Your task to perform on an android device: turn notification dots on Image 0: 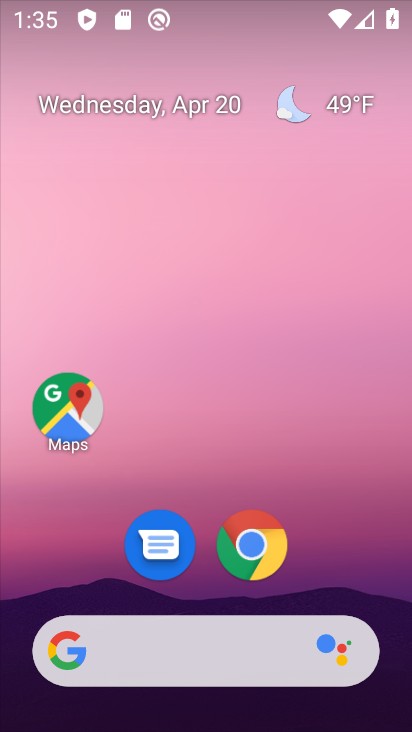
Step 0: drag from (202, 491) to (204, 0)
Your task to perform on an android device: turn notification dots on Image 1: 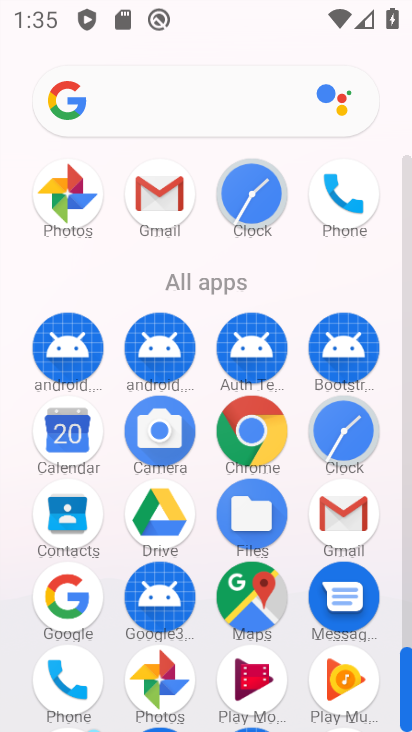
Step 1: drag from (206, 557) to (298, 186)
Your task to perform on an android device: turn notification dots on Image 2: 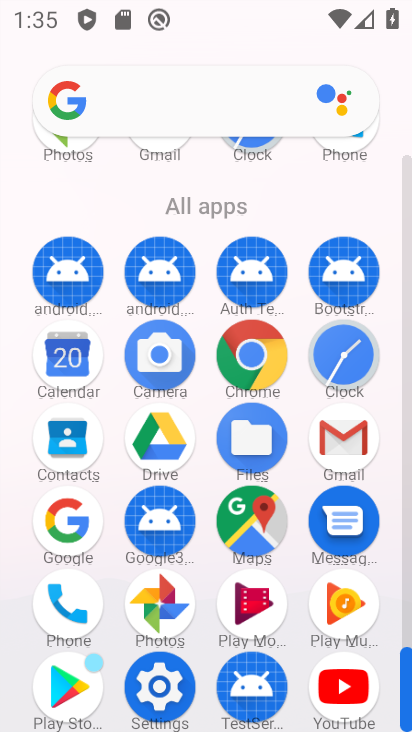
Step 2: click (161, 684)
Your task to perform on an android device: turn notification dots on Image 3: 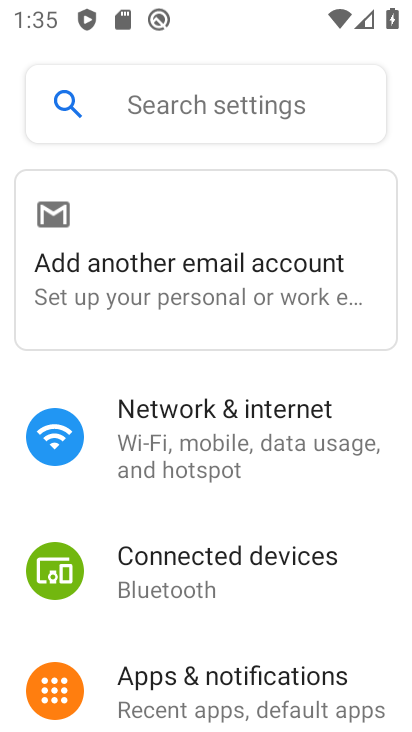
Step 3: click (190, 670)
Your task to perform on an android device: turn notification dots on Image 4: 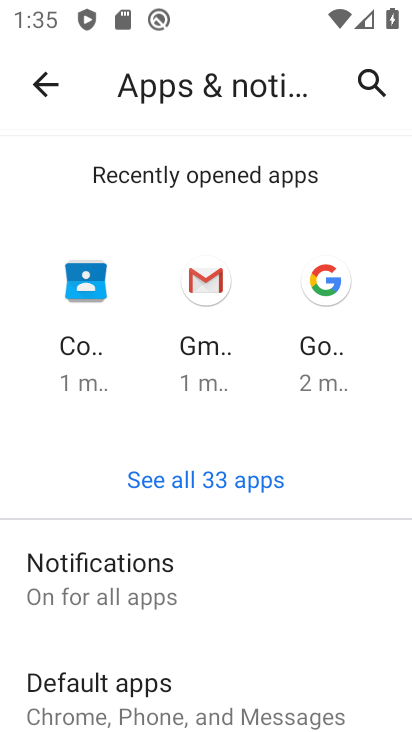
Step 4: click (147, 563)
Your task to perform on an android device: turn notification dots on Image 5: 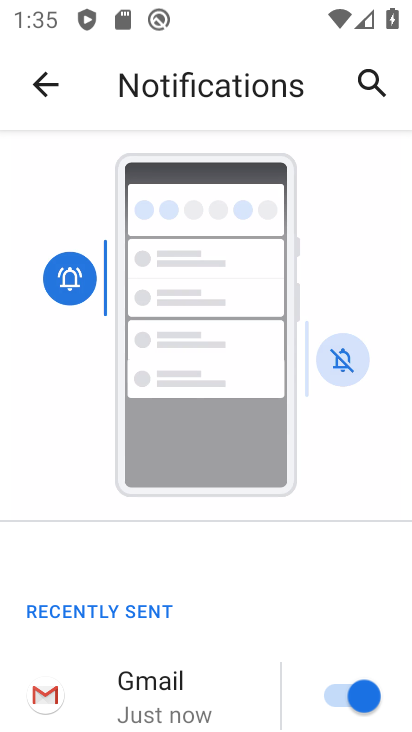
Step 5: drag from (226, 645) to (335, 115)
Your task to perform on an android device: turn notification dots on Image 6: 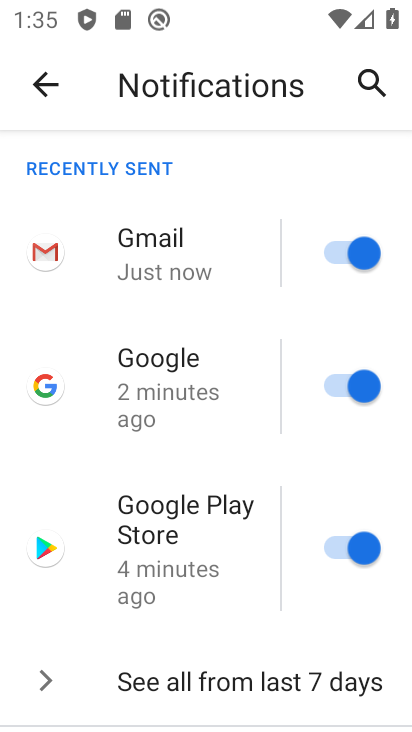
Step 6: drag from (202, 630) to (332, 161)
Your task to perform on an android device: turn notification dots on Image 7: 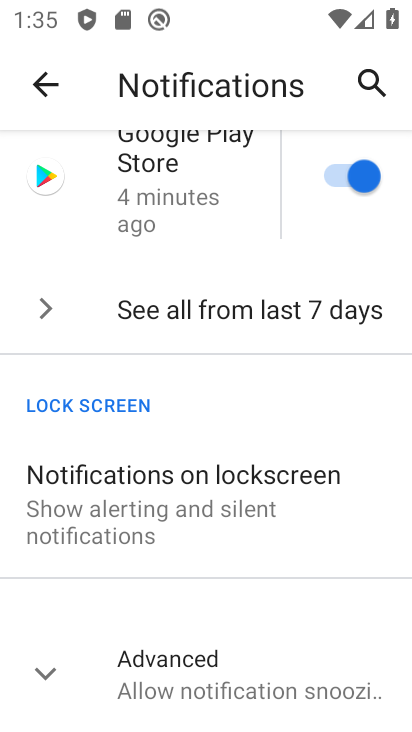
Step 7: click (219, 688)
Your task to perform on an android device: turn notification dots on Image 8: 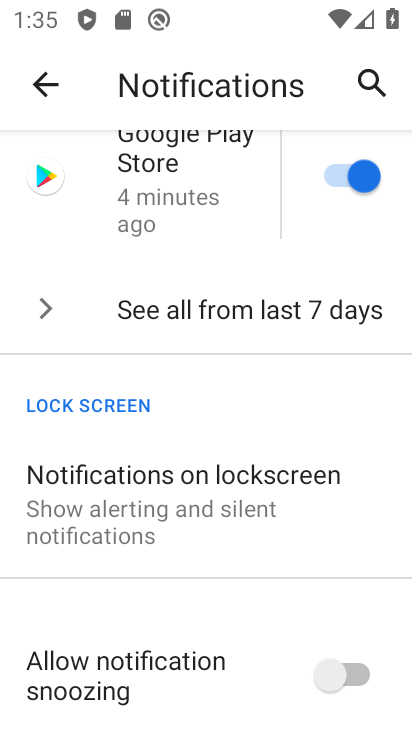
Step 8: task complete